Your task to perform on an android device: open app "Google Translate" (install if not already installed) Image 0: 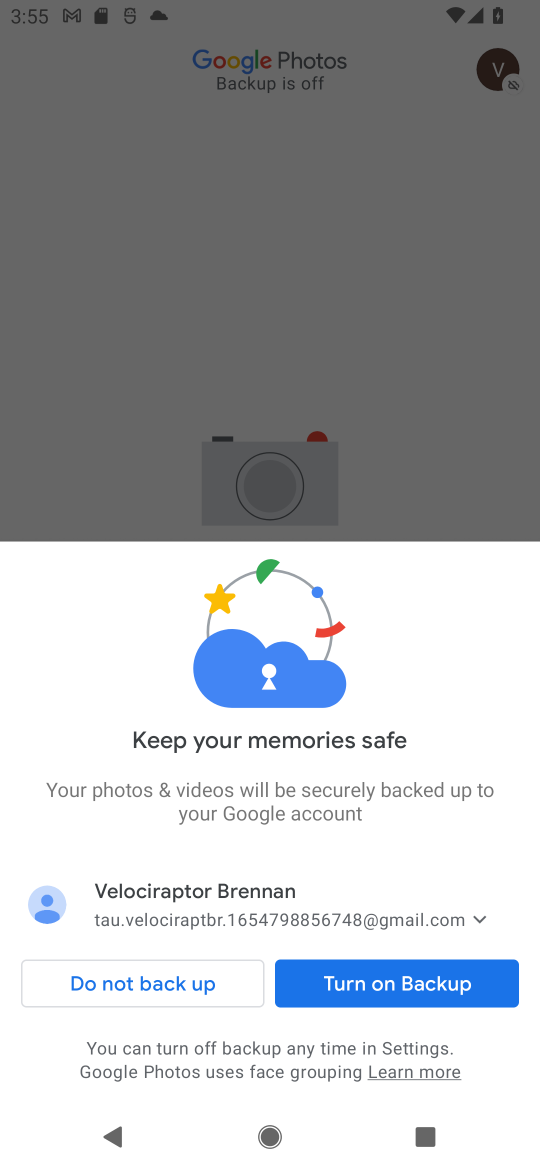
Step 0: press home button
Your task to perform on an android device: open app "Google Translate" (install if not already installed) Image 1: 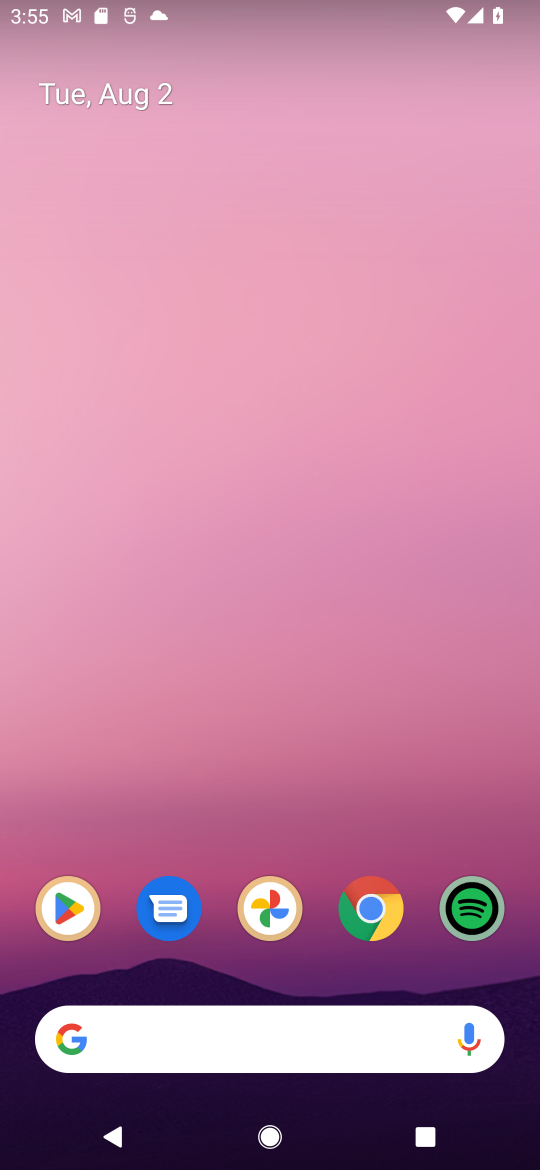
Step 1: click (62, 903)
Your task to perform on an android device: open app "Google Translate" (install if not already installed) Image 2: 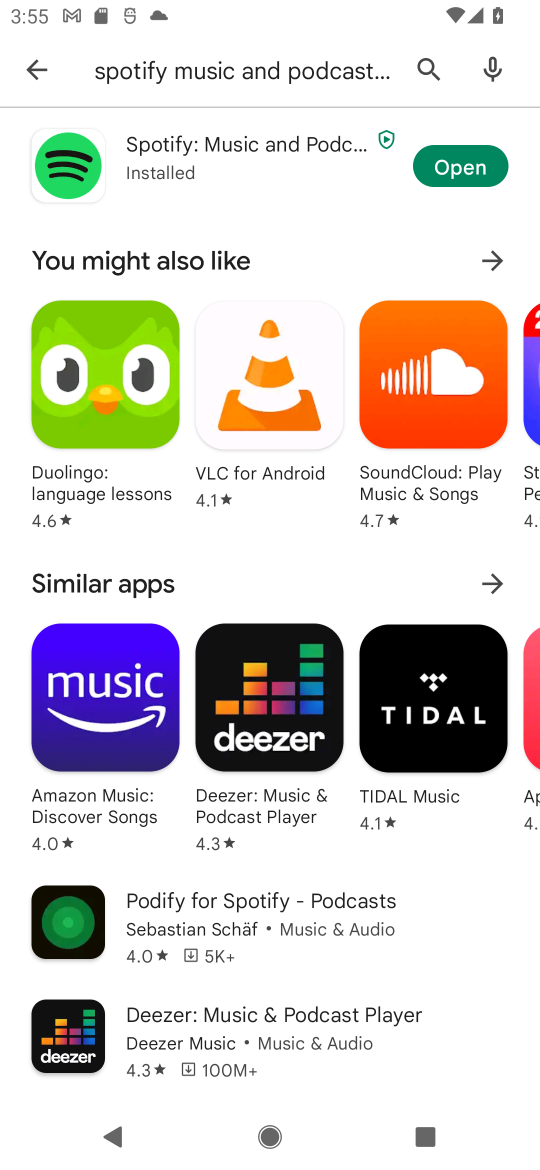
Step 2: click (430, 70)
Your task to perform on an android device: open app "Google Translate" (install if not already installed) Image 3: 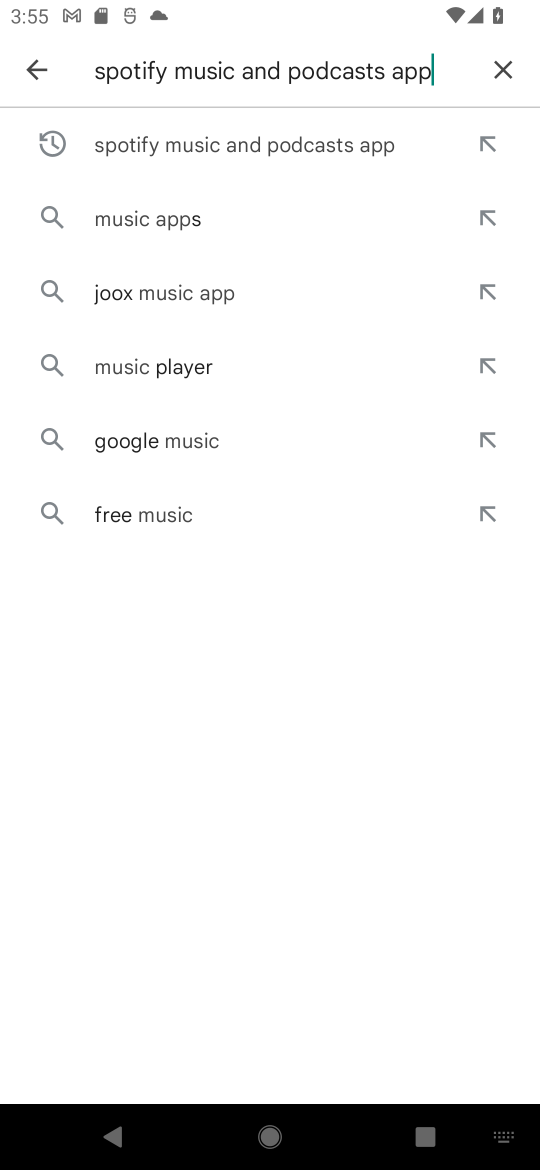
Step 3: click (505, 68)
Your task to perform on an android device: open app "Google Translate" (install if not already installed) Image 4: 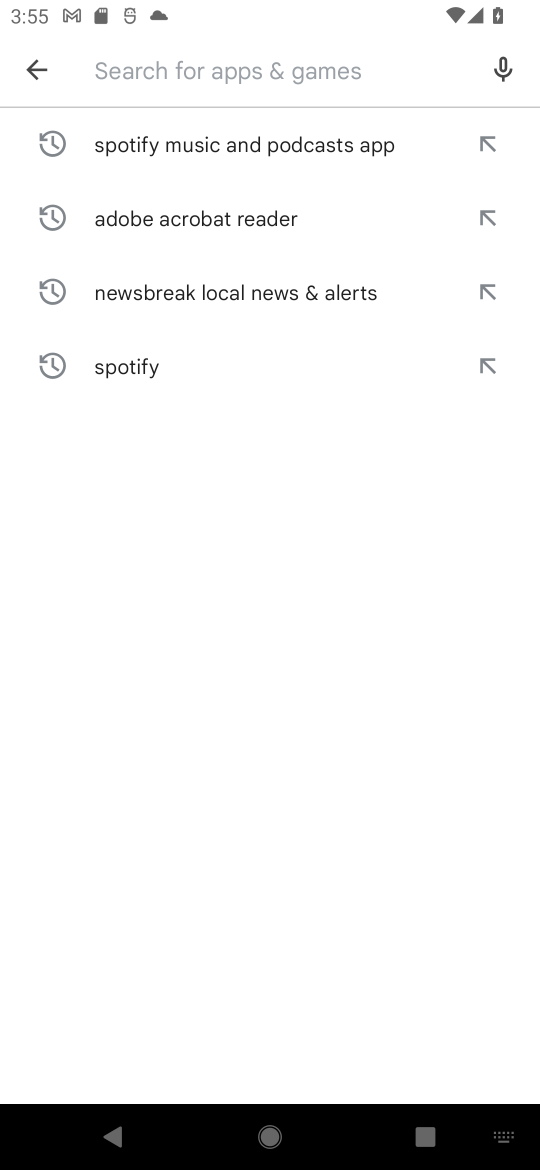
Step 4: type "Google Translate"
Your task to perform on an android device: open app "Google Translate" (install if not already installed) Image 5: 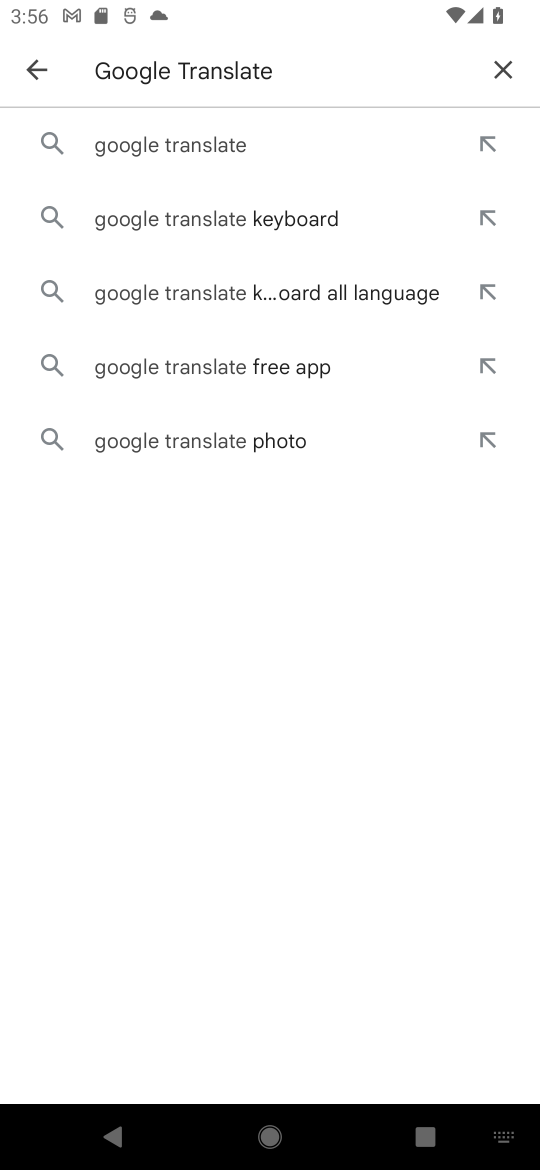
Step 5: click (252, 135)
Your task to perform on an android device: open app "Google Translate" (install if not already installed) Image 6: 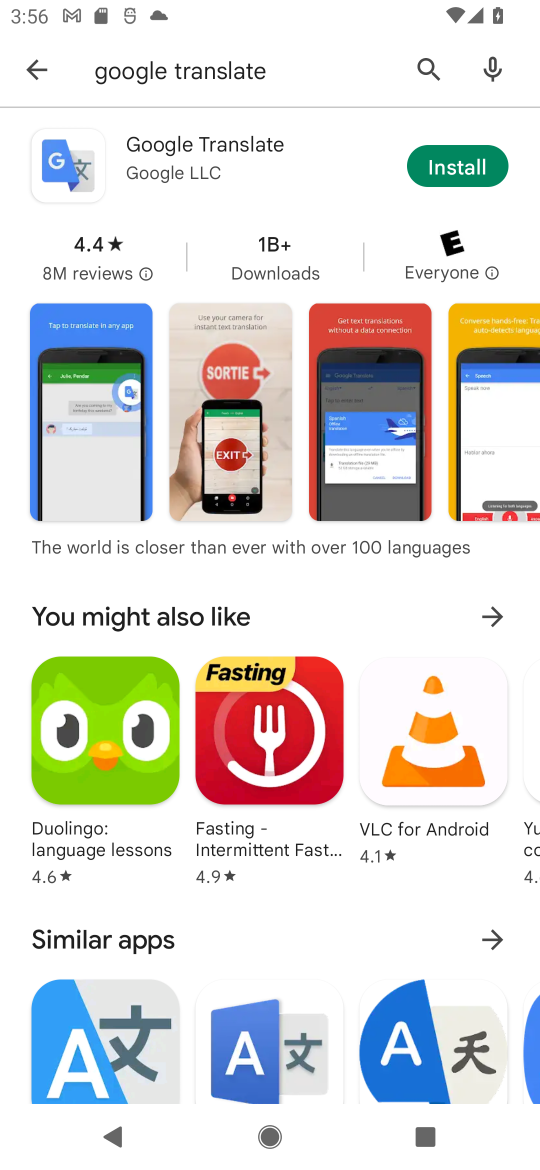
Step 6: click (459, 164)
Your task to perform on an android device: open app "Google Translate" (install if not already installed) Image 7: 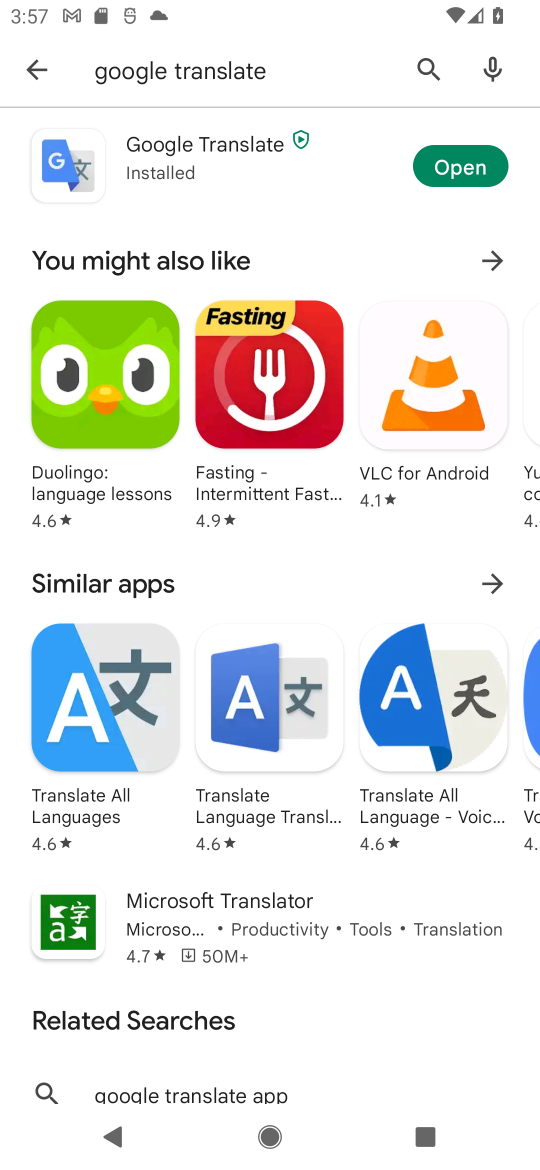
Step 7: click (459, 164)
Your task to perform on an android device: open app "Google Translate" (install if not already installed) Image 8: 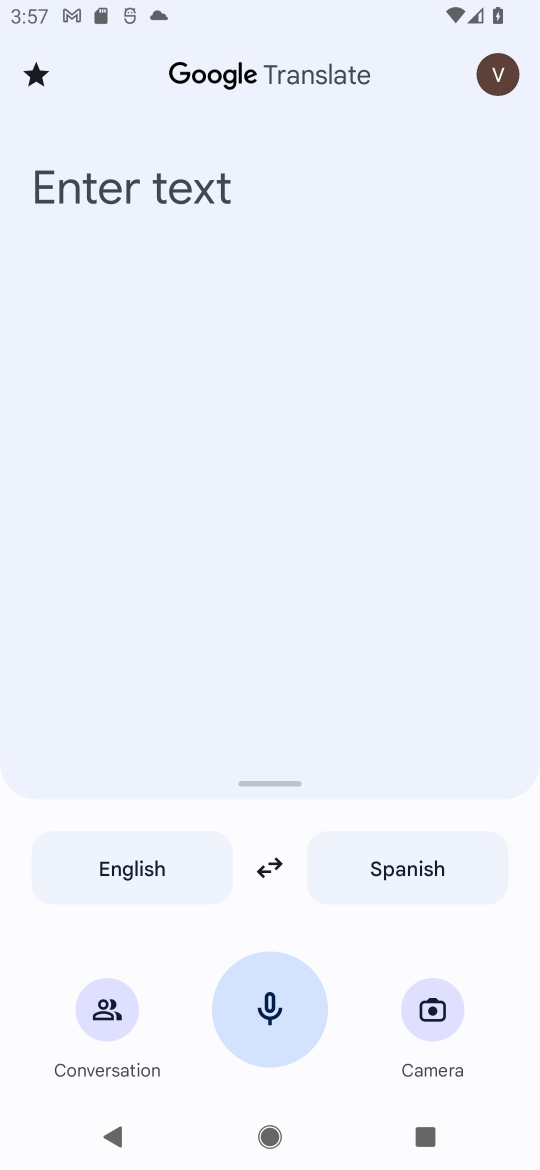
Step 8: task complete